Your task to perform on an android device: Open Chrome and go to settings Image 0: 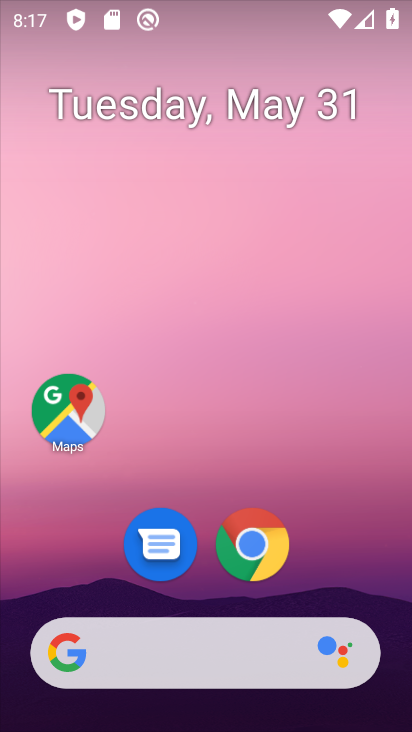
Step 0: click (267, 541)
Your task to perform on an android device: Open Chrome and go to settings Image 1: 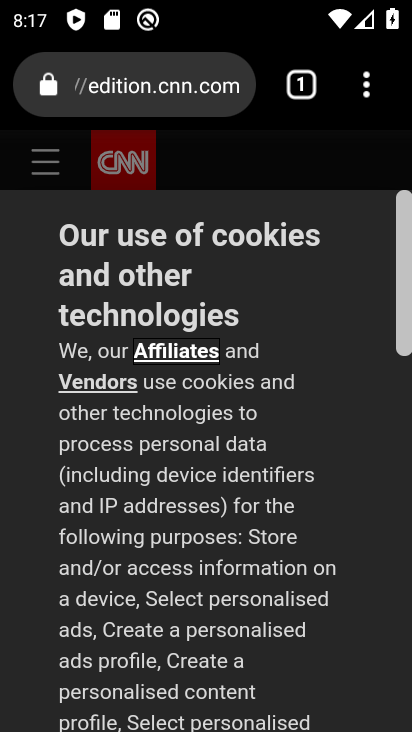
Step 1: task complete